Your task to perform on an android device: Go to privacy settings Image 0: 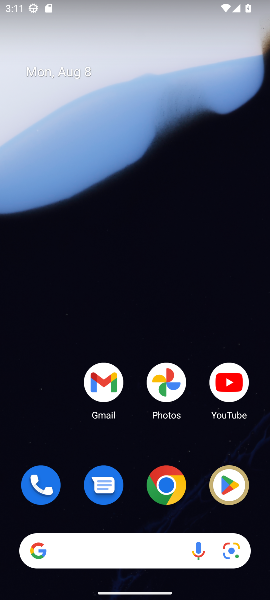
Step 0: drag from (151, 595) to (23, 96)
Your task to perform on an android device: Go to privacy settings Image 1: 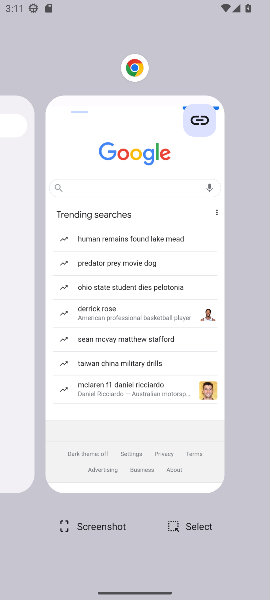
Step 1: press back button
Your task to perform on an android device: Go to privacy settings Image 2: 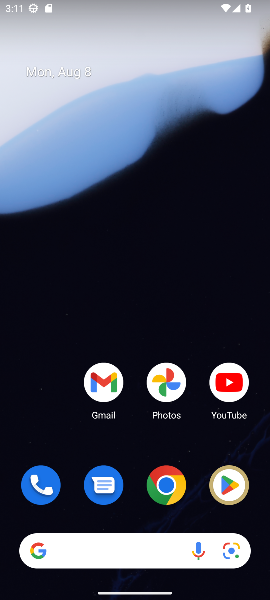
Step 2: drag from (145, 592) to (75, 165)
Your task to perform on an android device: Go to privacy settings Image 3: 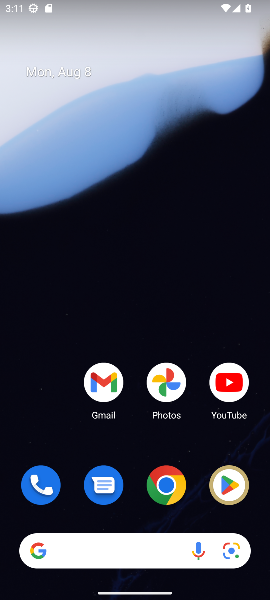
Step 3: drag from (134, 510) to (125, 132)
Your task to perform on an android device: Go to privacy settings Image 4: 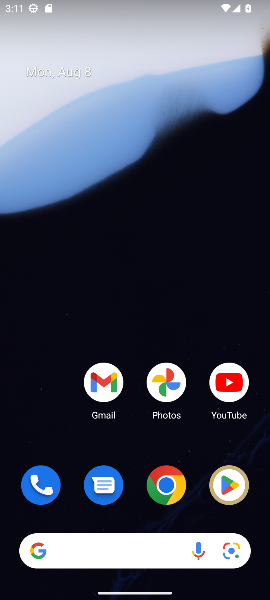
Step 4: drag from (116, 400) to (99, 100)
Your task to perform on an android device: Go to privacy settings Image 5: 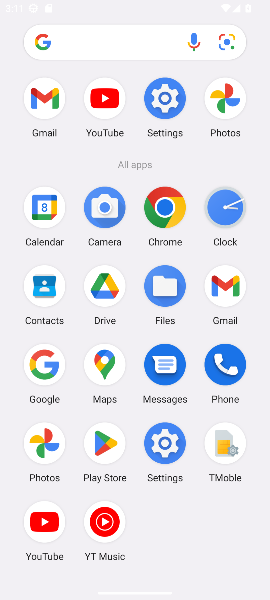
Step 5: drag from (138, 477) to (122, 119)
Your task to perform on an android device: Go to privacy settings Image 6: 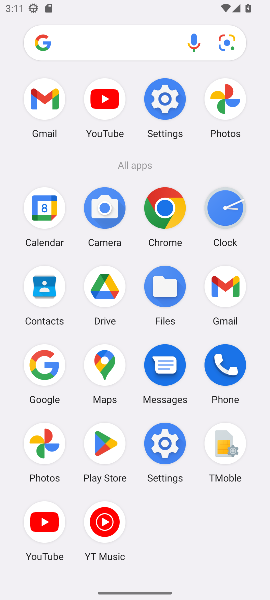
Step 6: click (154, 108)
Your task to perform on an android device: Go to privacy settings Image 7: 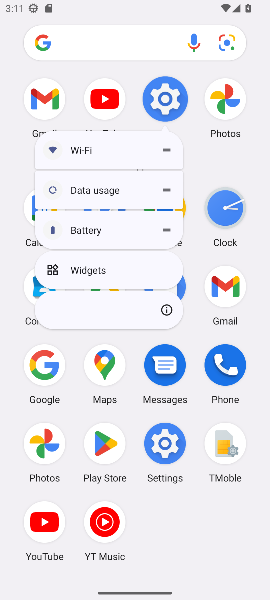
Step 7: click (154, 108)
Your task to perform on an android device: Go to privacy settings Image 8: 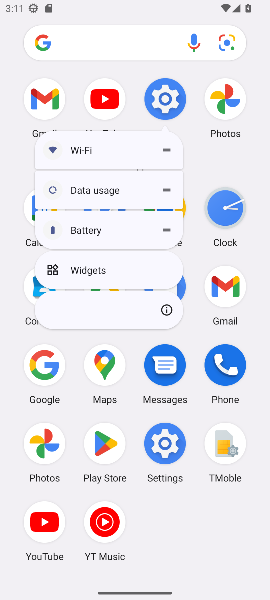
Step 8: click (154, 108)
Your task to perform on an android device: Go to privacy settings Image 9: 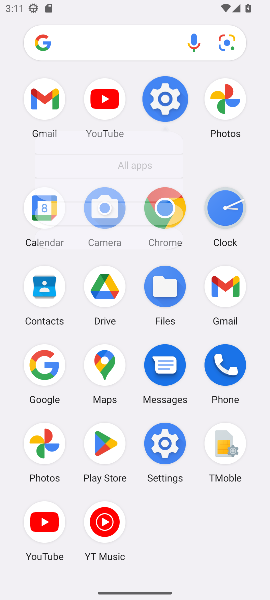
Step 9: click (155, 107)
Your task to perform on an android device: Go to privacy settings Image 10: 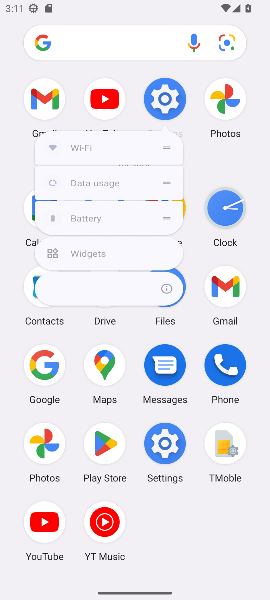
Step 10: click (159, 108)
Your task to perform on an android device: Go to privacy settings Image 11: 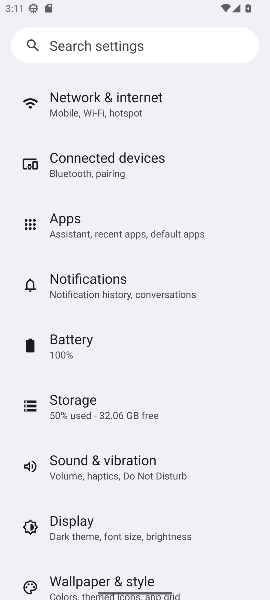
Step 11: click (159, 108)
Your task to perform on an android device: Go to privacy settings Image 12: 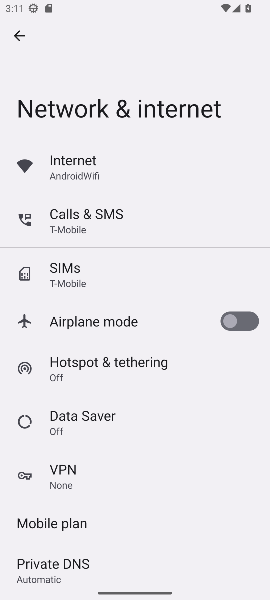
Step 12: click (11, 41)
Your task to perform on an android device: Go to privacy settings Image 13: 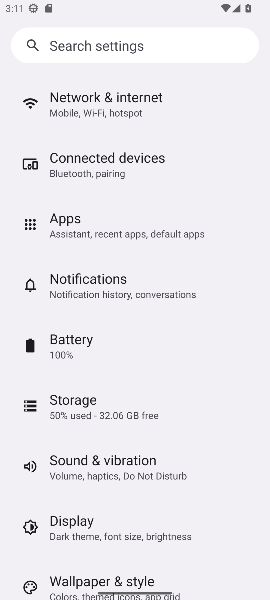
Step 13: drag from (125, 468) to (126, 98)
Your task to perform on an android device: Go to privacy settings Image 14: 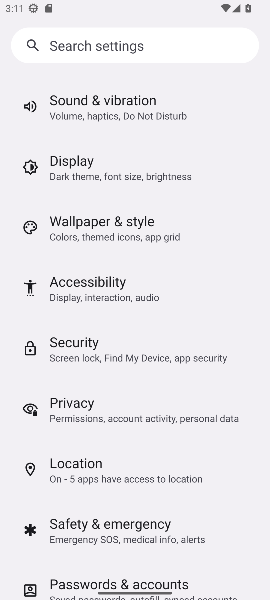
Step 14: drag from (122, 457) to (123, 232)
Your task to perform on an android device: Go to privacy settings Image 15: 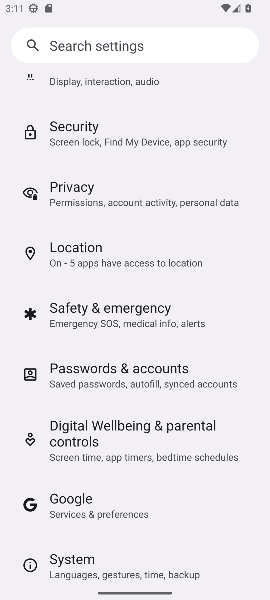
Step 15: click (79, 182)
Your task to perform on an android device: Go to privacy settings Image 16: 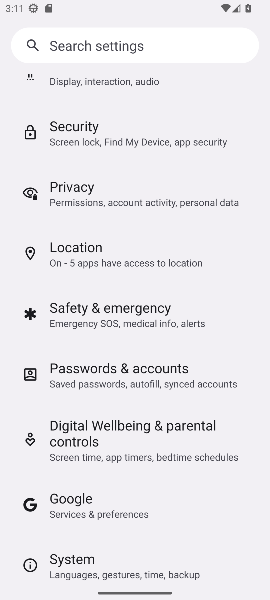
Step 16: click (79, 187)
Your task to perform on an android device: Go to privacy settings Image 17: 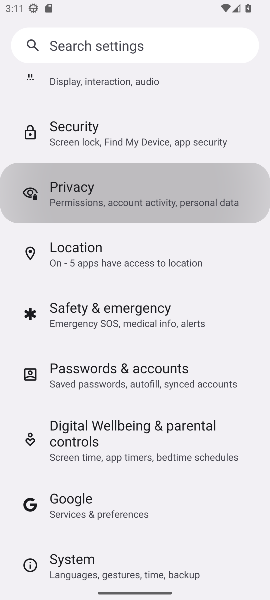
Step 17: click (80, 190)
Your task to perform on an android device: Go to privacy settings Image 18: 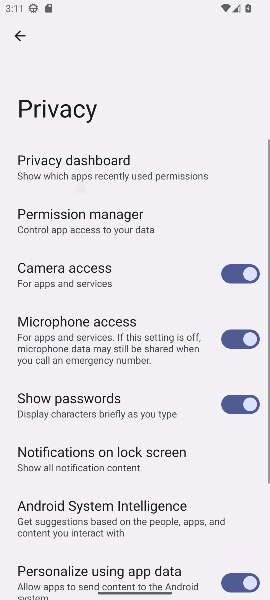
Step 18: click (81, 191)
Your task to perform on an android device: Go to privacy settings Image 19: 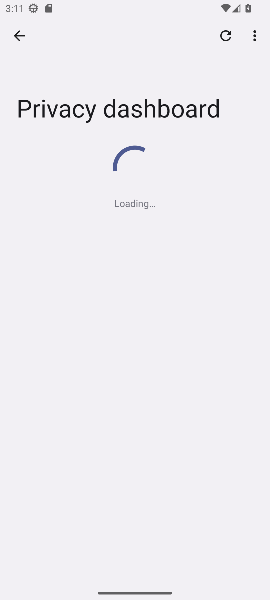
Step 19: task complete